Your task to perform on an android device: Turn off the flashlight Image 0: 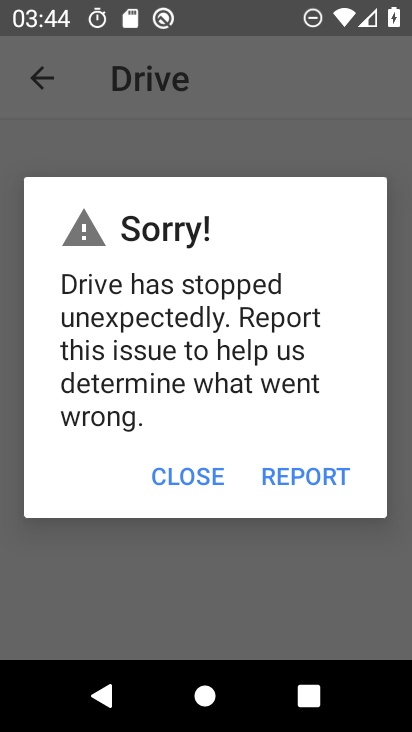
Step 0: press back button
Your task to perform on an android device: Turn off the flashlight Image 1: 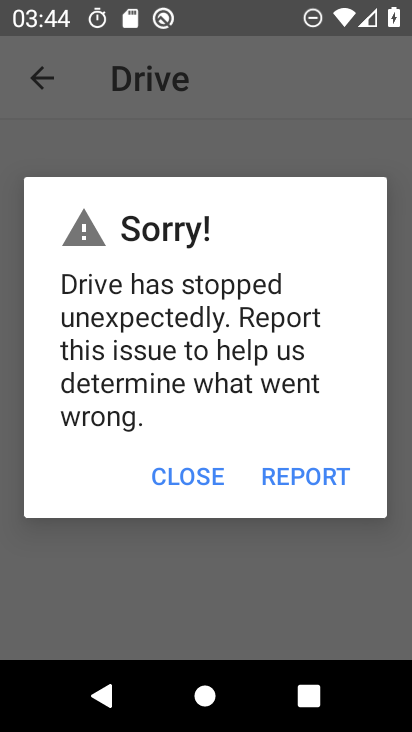
Step 1: press home button
Your task to perform on an android device: Turn off the flashlight Image 2: 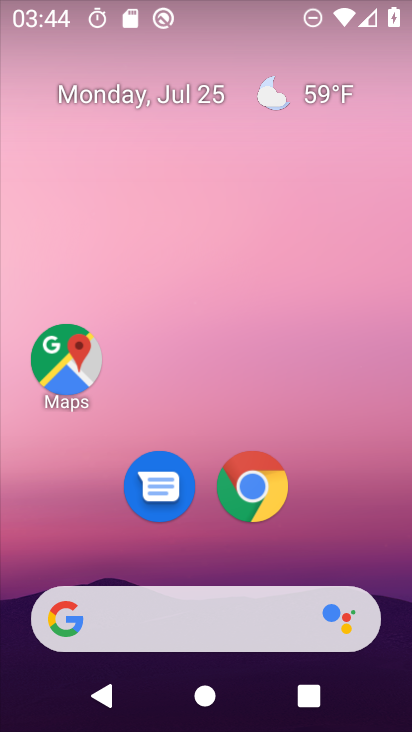
Step 2: drag from (224, 502) to (217, 6)
Your task to perform on an android device: Turn off the flashlight Image 3: 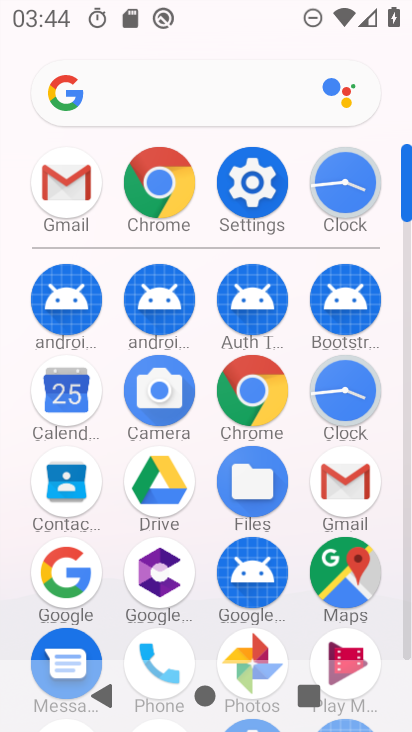
Step 3: click (255, 181)
Your task to perform on an android device: Turn off the flashlight Image 4: 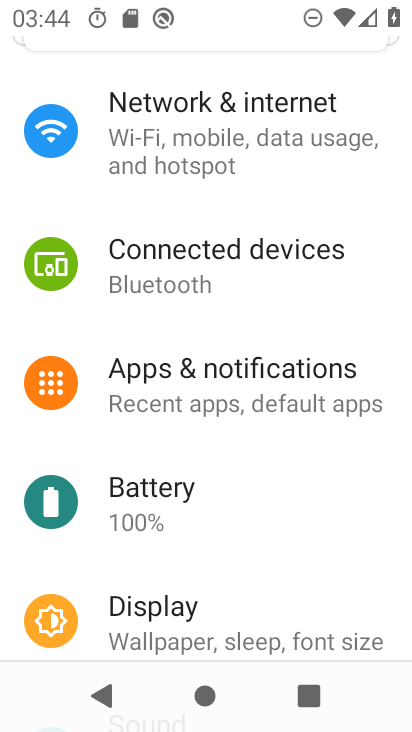
Step 4: drag from (170, 162) to (194, 637)
Your task to perform on an android device: Turn off the flashlight Image 5: 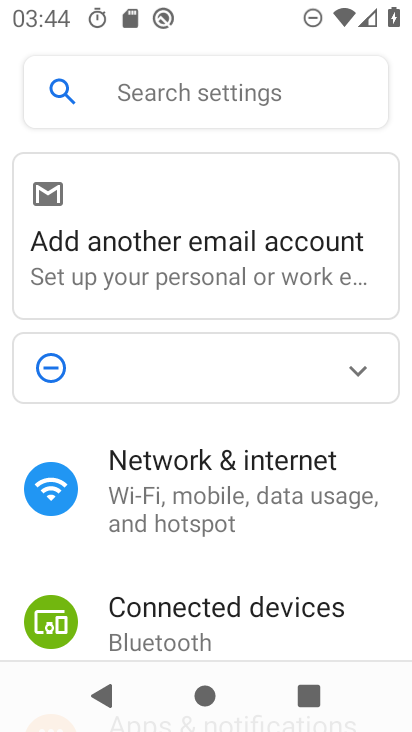
Step 5: click (157, 91)
Your task to perform on an android device: Turn off the flashlight Image 6: 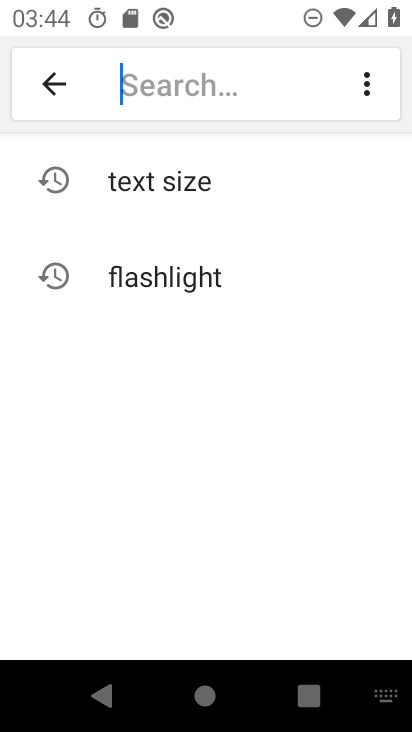
Step 6: type "flashlight"
Your task to perform on an android device: Turn off the flashlight Image 7: 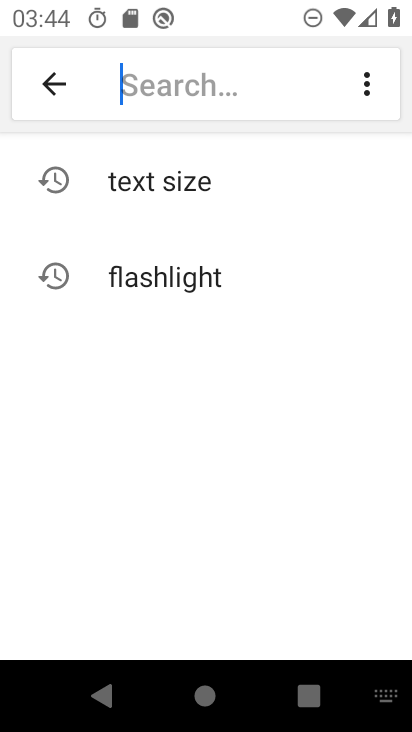
Step 7: click (181, 268)
Your task to perform on an android device: Turn off the flashlight Image 8: 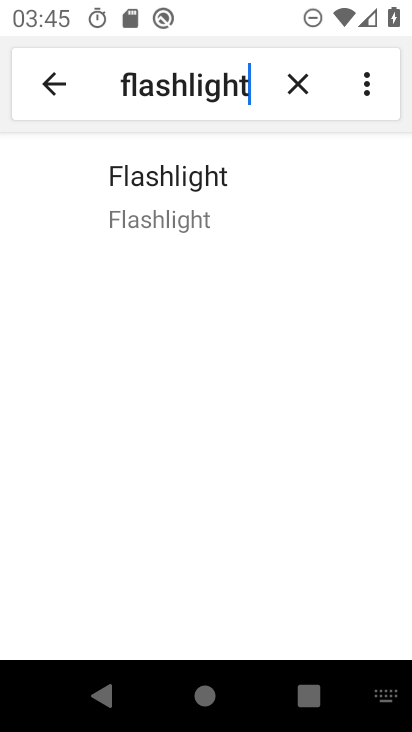
Step 8: task complete